Your task to perform on an android device: add a label to a message in the gmail app Image 0: 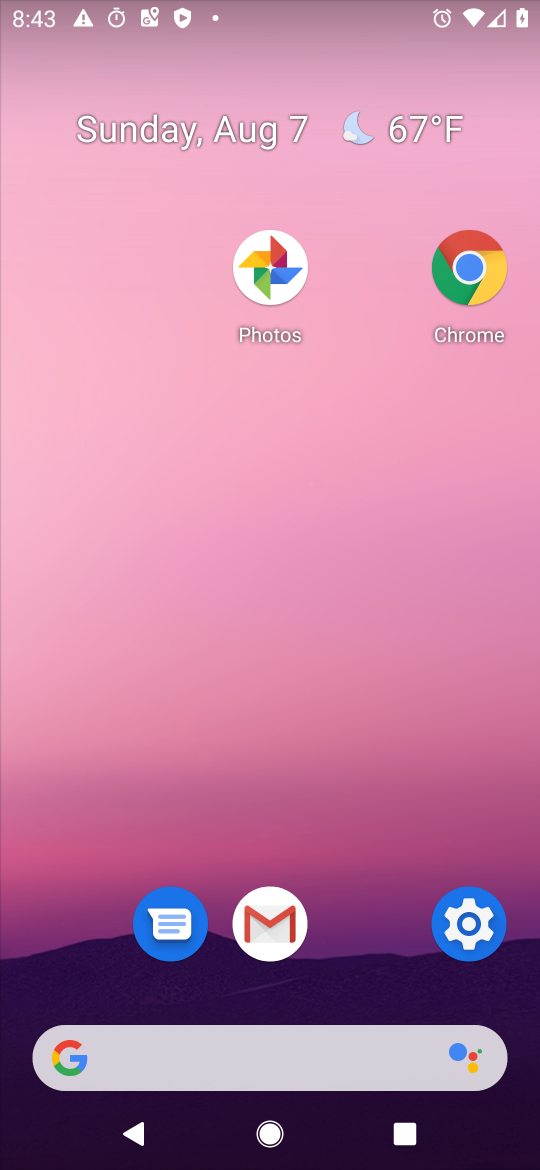
Step 0: press home button
Your task to perform on an android device: add a label to a message in the gmail app Image 1: 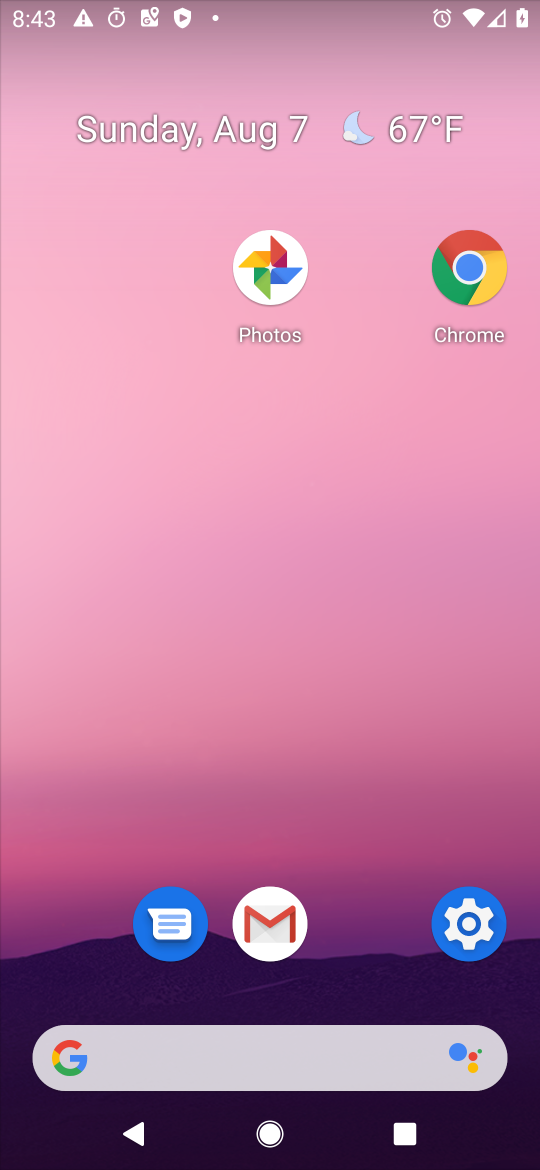
Step 1: drag from (363, 1016) to (422, 241)
Your task to perform on an android device: add a label to a message in the gmail app Image 2: 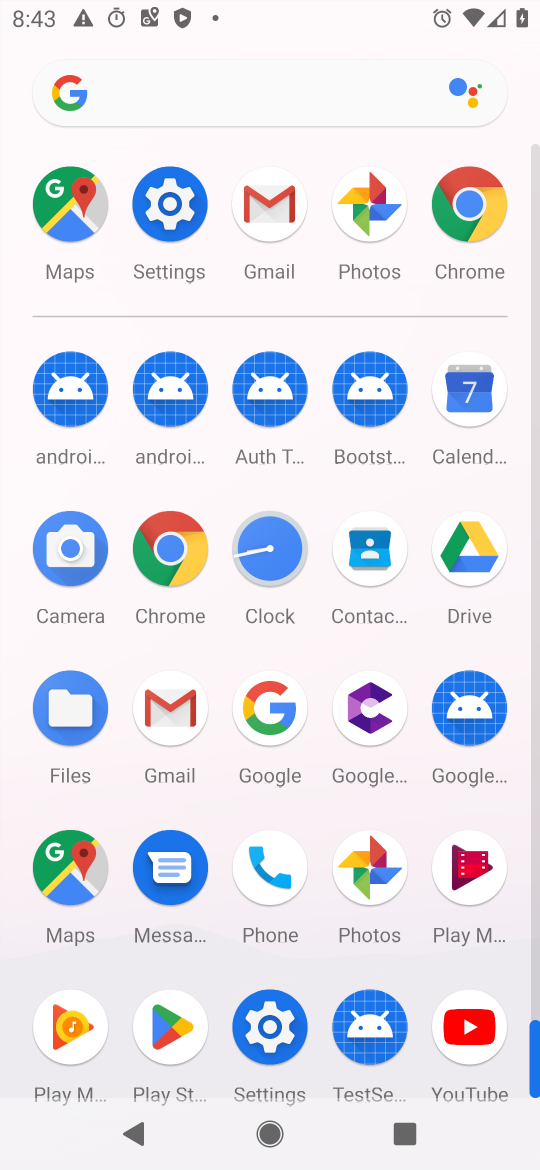
Step 2: click (255, 202)
Your task to perform on an android device: add a label to a message in the gmail app Image 3: 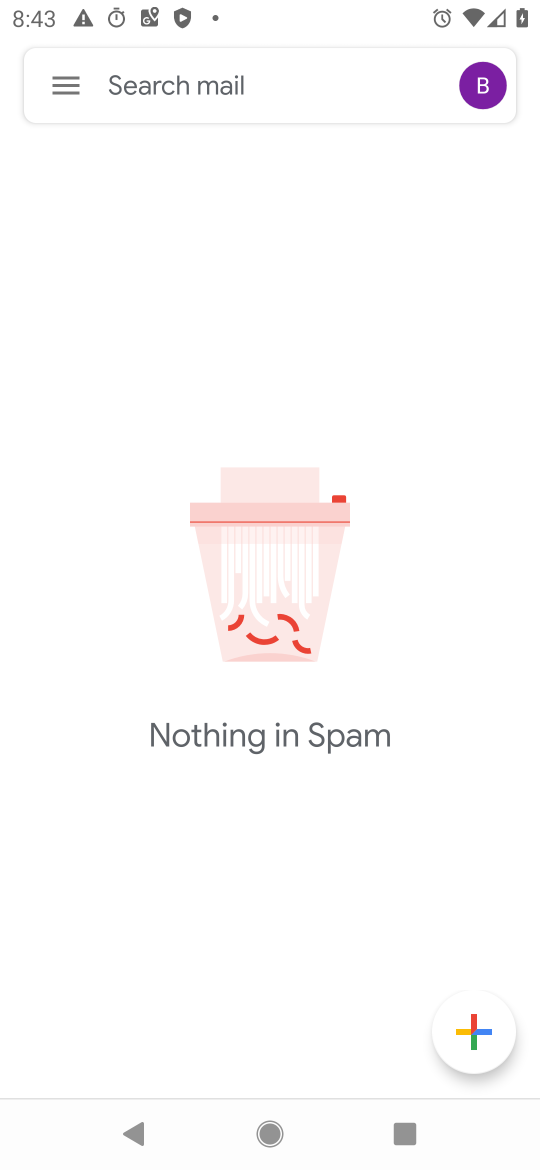
Step 3: click (61, 87)
Your task to perform on an android device: add a label to a message in the gmail app Image 4: 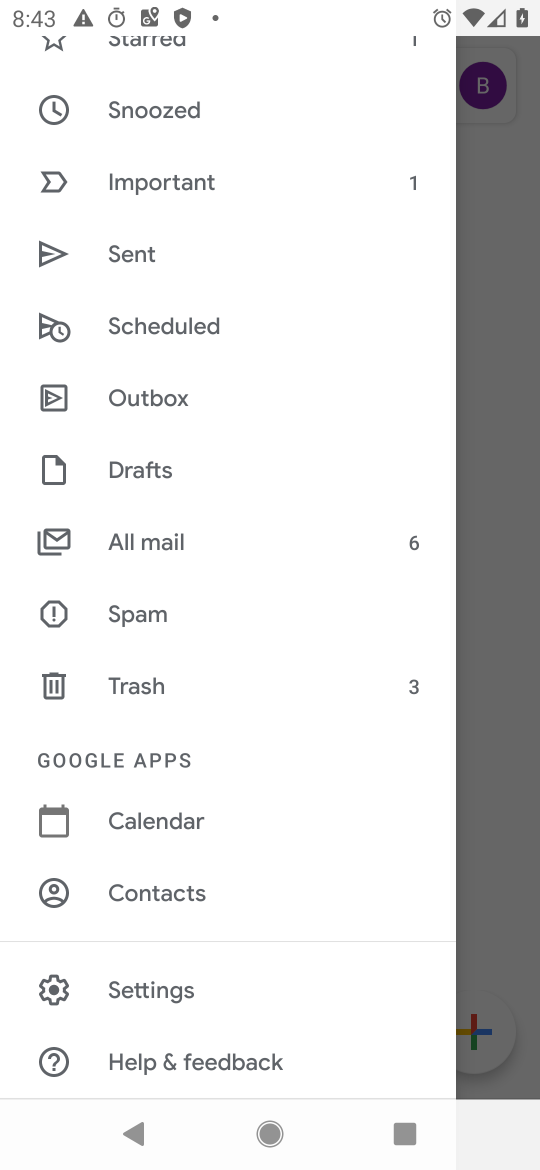
Step 4: click (520, 220)
Your task to perform on an android device: add a label to a message in the gmail app Image 5: 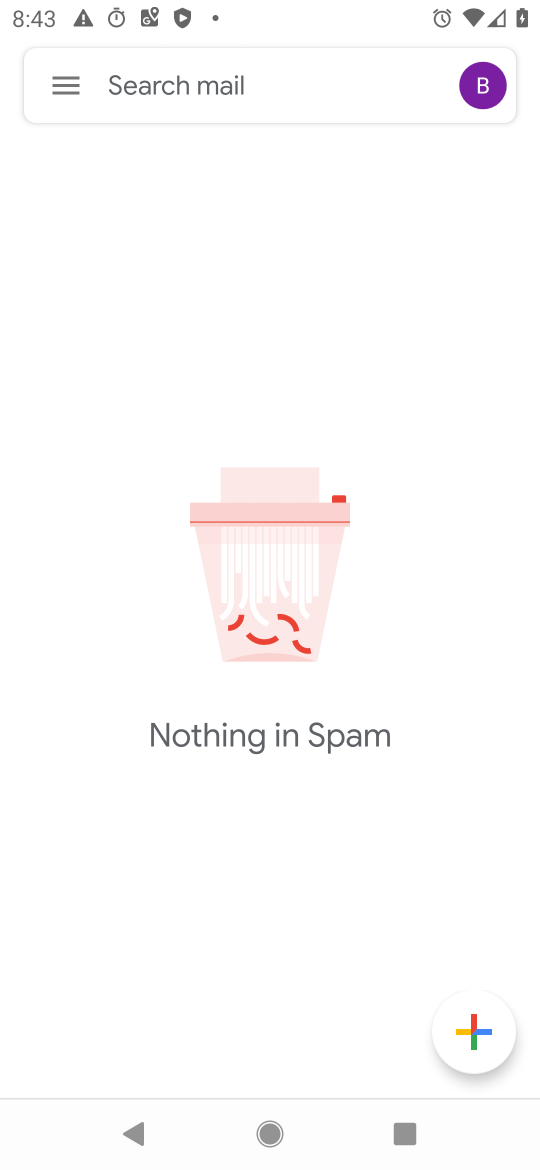
Step 5: click (70, 79)
Your task to perform on an android device: add a label to a message in the gmail app Image 6: 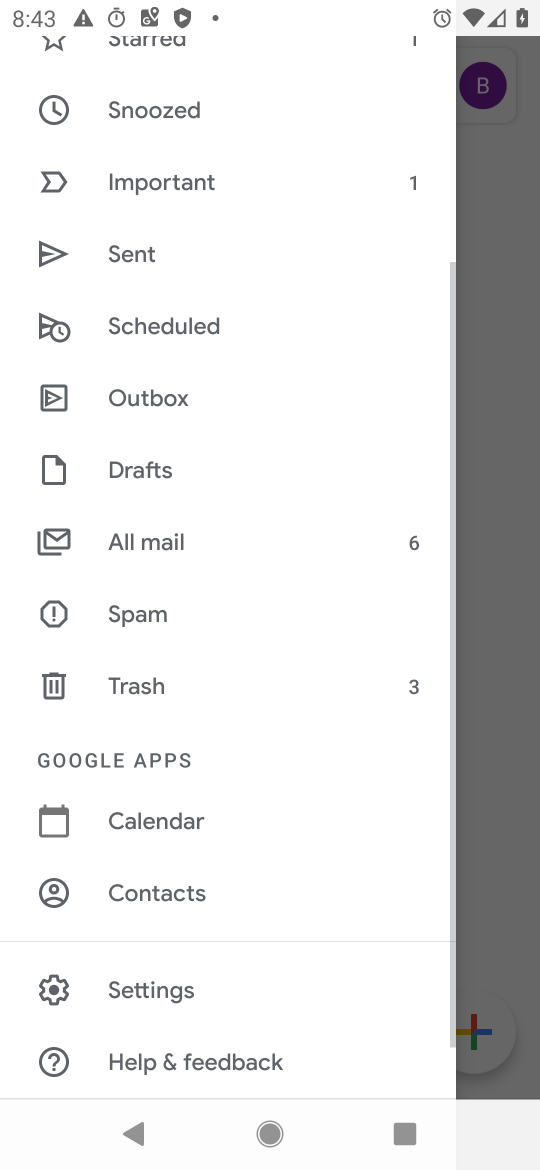
Step 6: click (183, 551)
Your task to perform on an android device: add a label to a message in the gmail app Image 7: 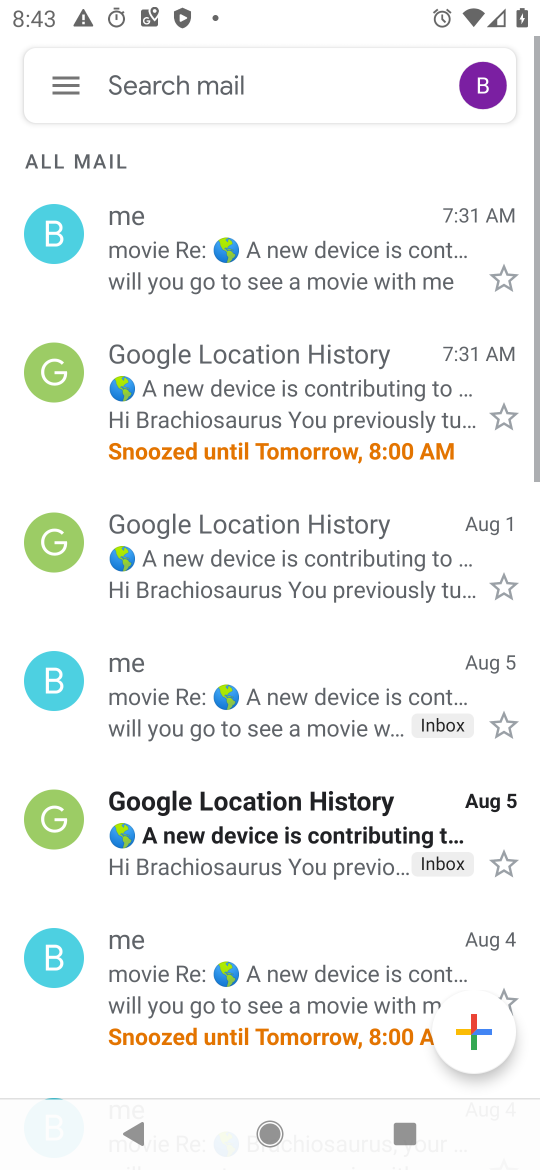
Step 7: click (265, 259)
Your task to perform on an android device: add a label to a message in the gmail app Image 8: 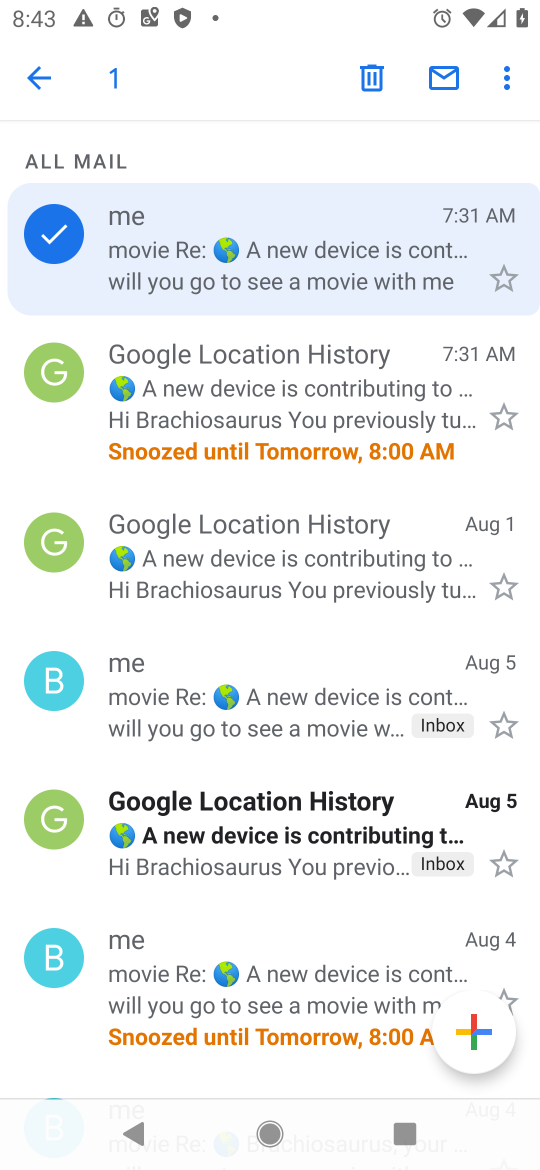
Step 8: click (53, 80)
Your task to perform on an android device: add a label to a message in the gmail app Image 9: 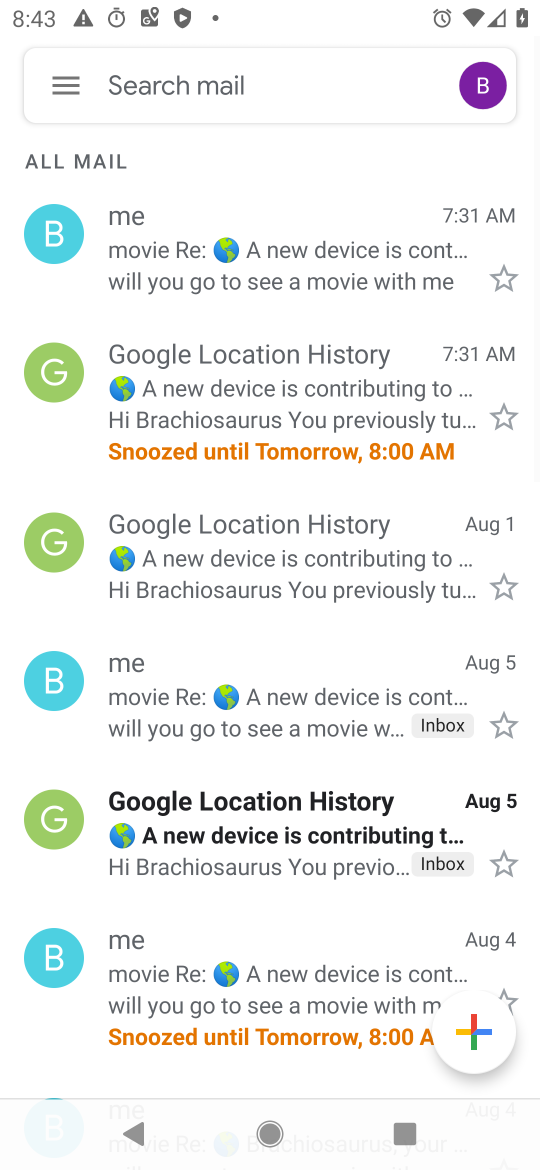
Step 9: click (208, 206)
Your task to perform on an android device: add a label to a message in the gmail app Image 10: 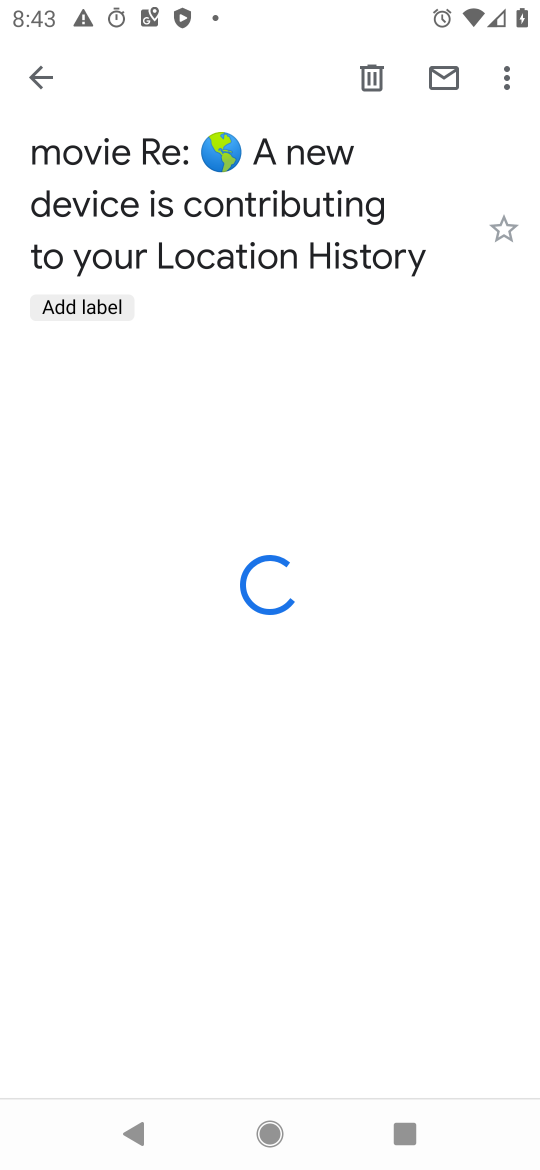
Step 10: click (494, 78)
Your task to perform on an android device: add a label to a message in the gmail app Image 11: 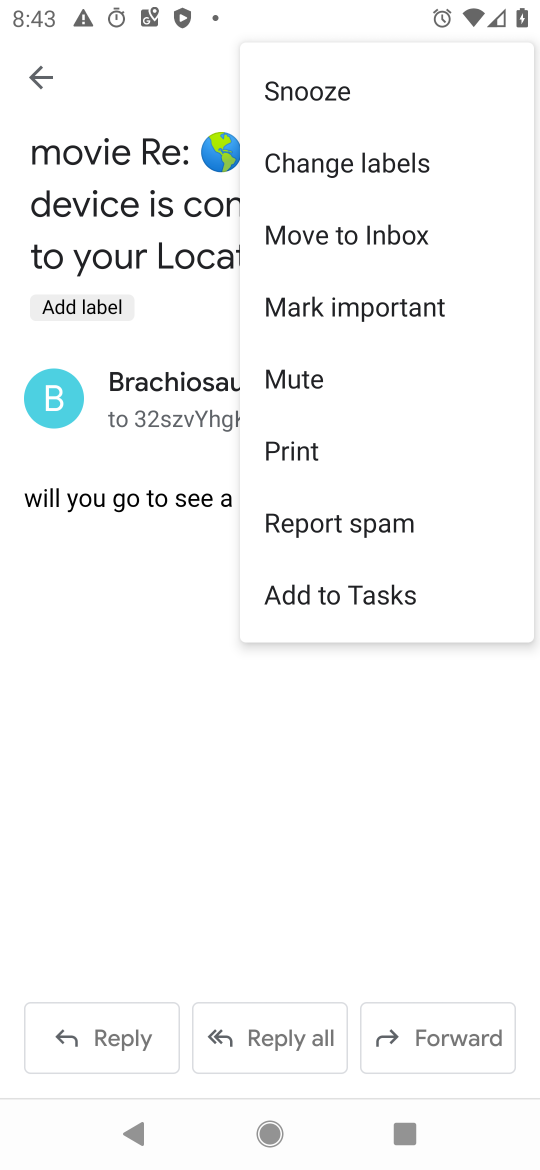
Step 11: click (389, 191)
Your task to perform on an android device: add a label to a message in the gmail app Image 12: 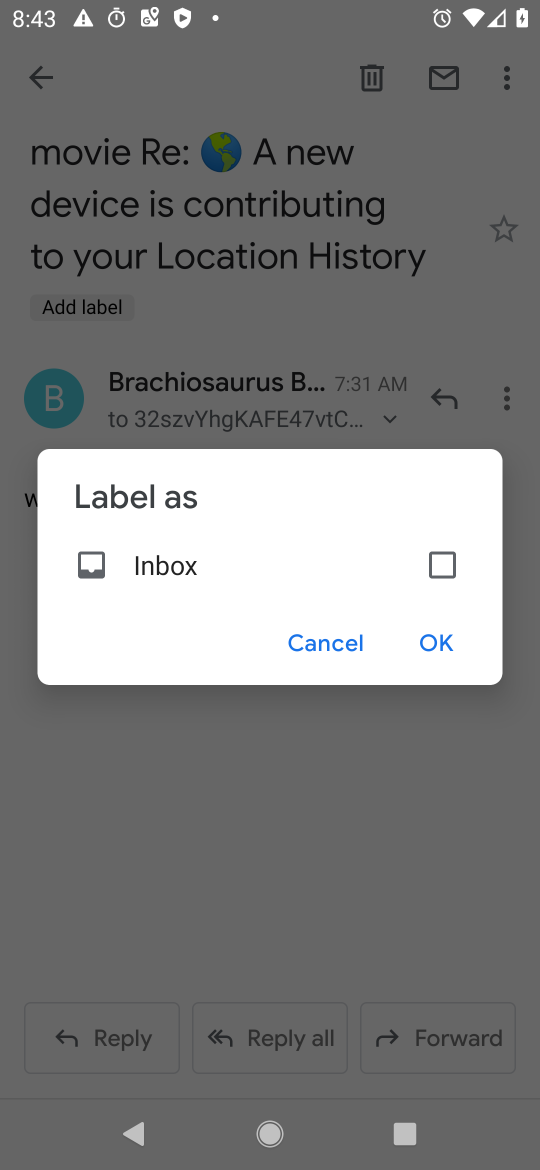
Step 12: click (431, 551)
Your task to perform on an android device: add a label to a message in the gmail app Image 13: 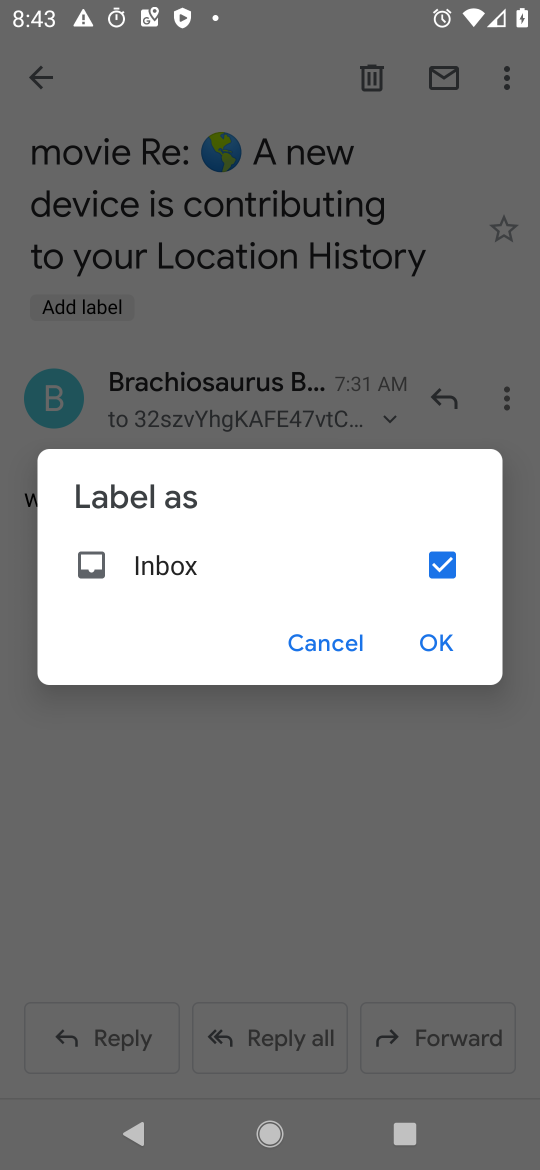
Step 13: click (438, 646)
Your task to perform on an android device: add a label to a message in the gmail app Image 14: 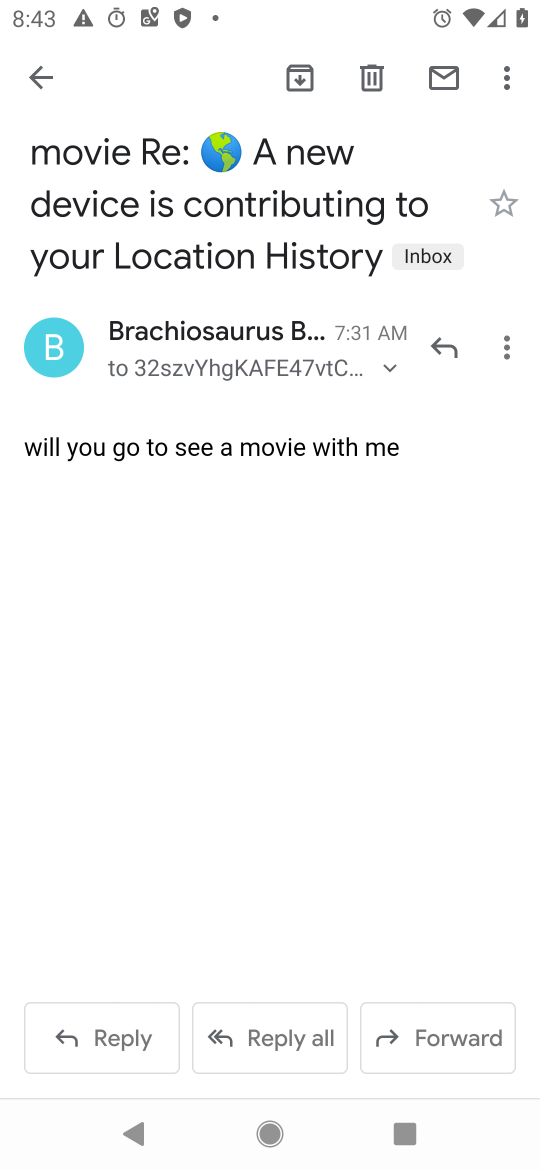
Step 14: task complete